Your task to perform on an android device: turn pop-ups on in chrome Image 0: 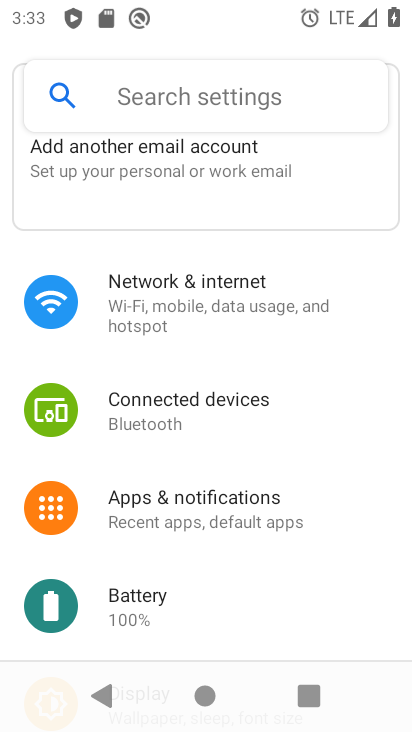
Step 0: press home button
Your task to perform on an android device: turn pop-ups on in chrome Image 1: 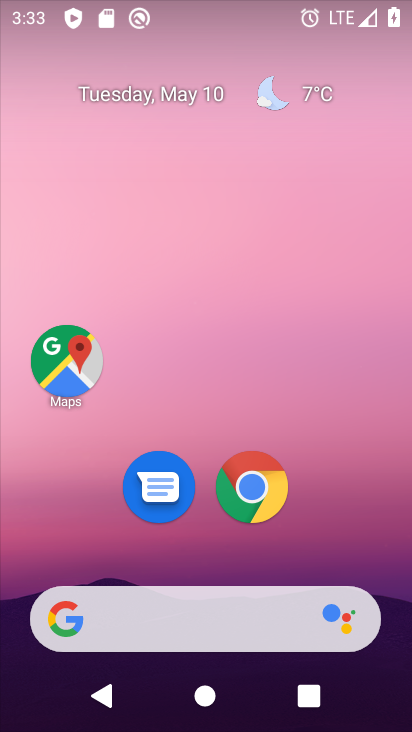
Step 1: click (251, 488)
Your task to perform on an android device: turn pop-ups on in chrome Image 2: 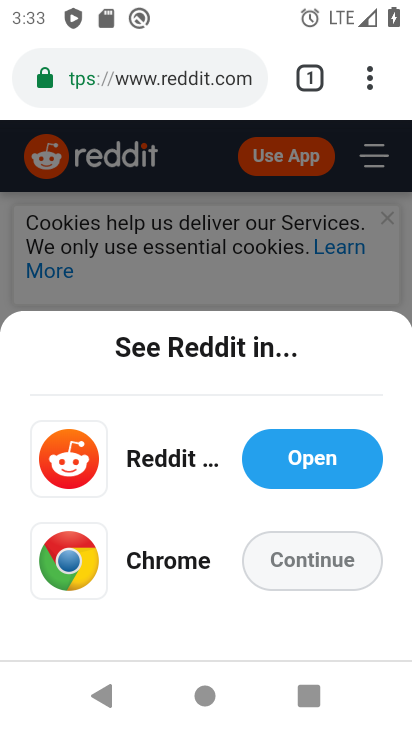
Step 2: drag from (374, 72) to (165, 559)
Your task to perform on an android device: turn pop-ups on in chrome Image 3: 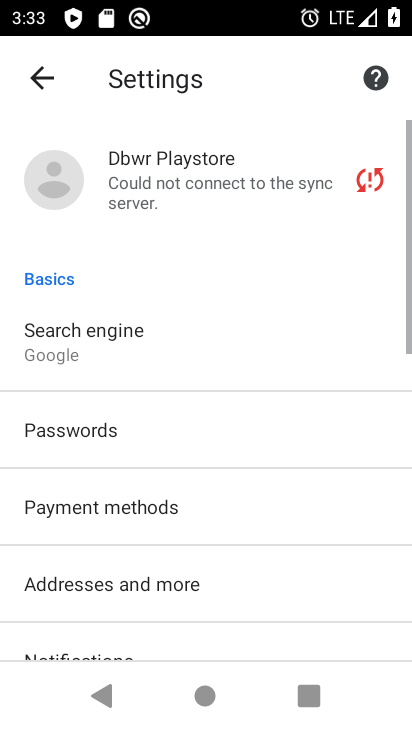
Step 3: drag from (240, 577) to (294, 269)
Your task to perform on an android device: turn pop-ups on in chrome Image 4: 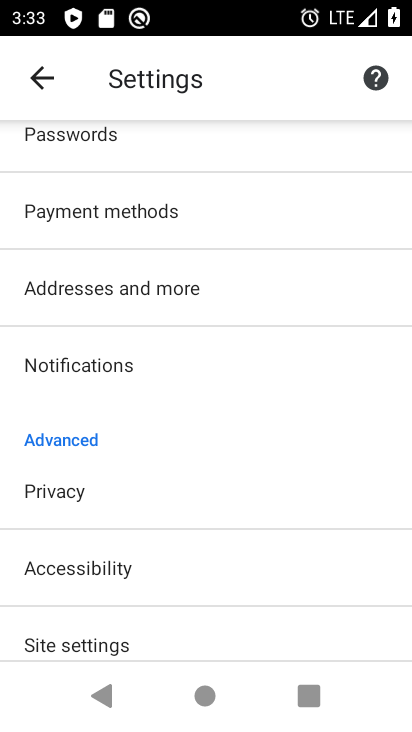
Step 4: drag from (150, 590) to (217, 317)
Your task to perform on an android device: turn pop-ups on in chrome Image 5: 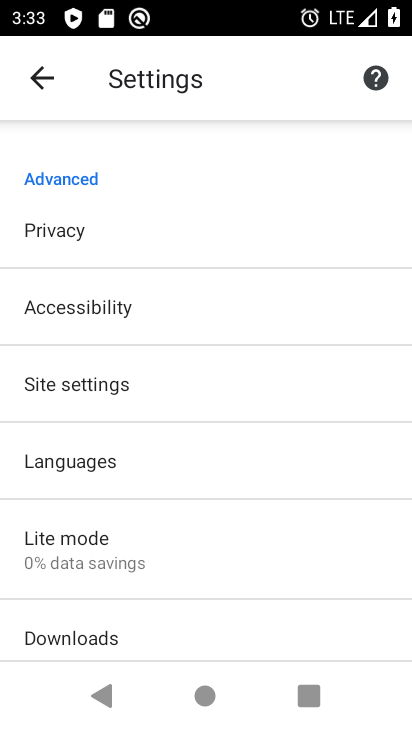
Step 5: click (146, 384)
Your task to perform on an android device: turn pop-ups on in chrome Image 6: 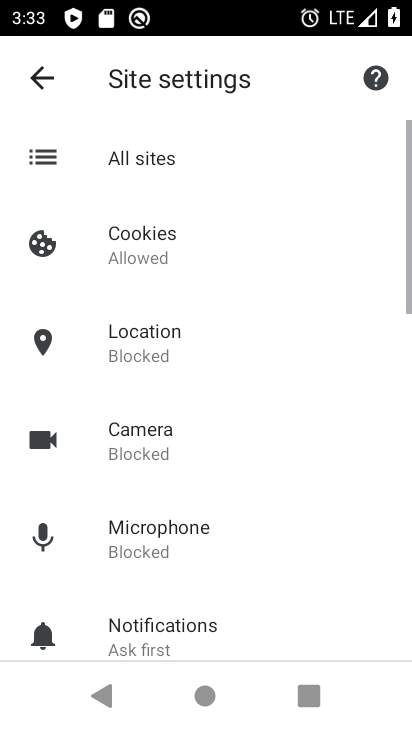
Step 6: drag from (322, 656) to (321, 196)
Your task to perform on an android device: turn pop-ups on in chrome Image 7: 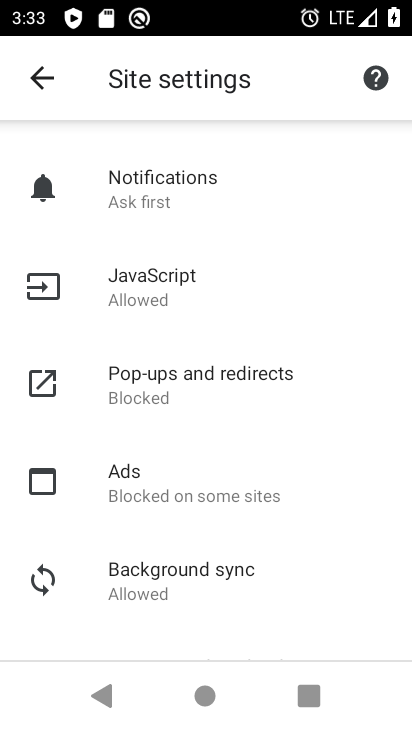
Step 7: click (203, 382)
Your task to perform on an android device: turn pop-ups on in chrome Image 8: 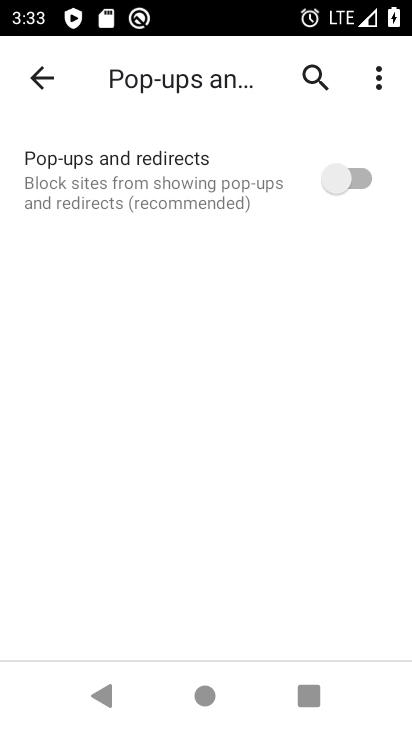
Step 8: click (353, 172)
Your task to perform on an android device: turn pop-ups on in chrome Image 9: 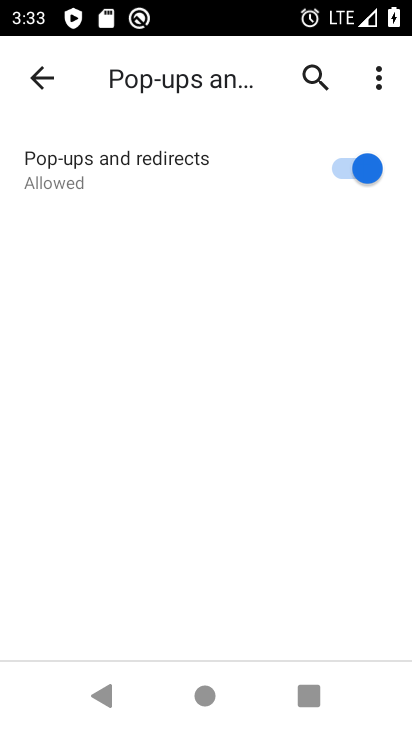
Step 9: task complete